Your task to perform on an android device: Open settings on Google Maps Image 0: 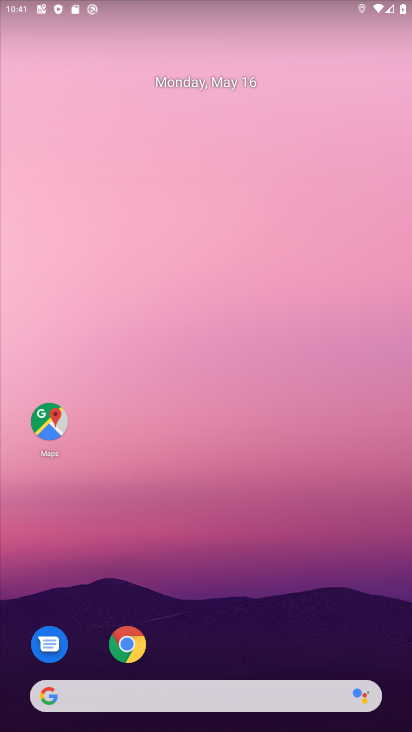
Step 0: drag from (202, 727) to (226, 129)
Your task to perform on an android device: Open settings on Google Maps Image 1: 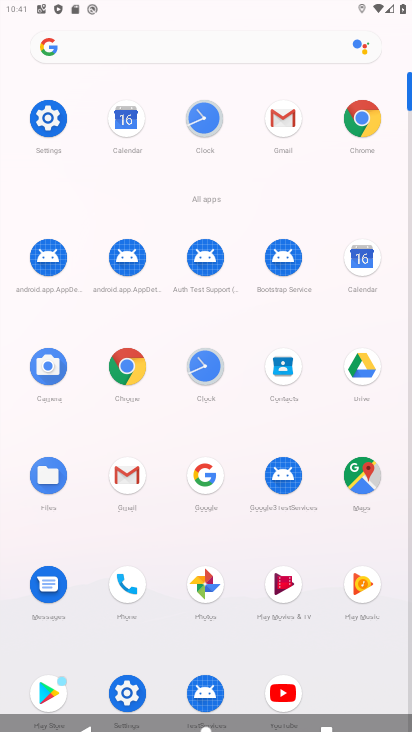
Step 1: click (365, 468)
Your task to perform on an android device: Open settings on Google Maps Image 2: 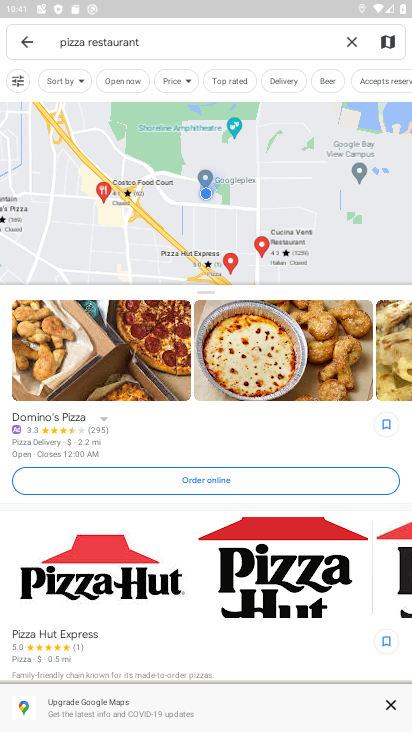
Step 2: click (25, 38)
Your task to perform on an android device: Open settings on Google Maps Image 3: 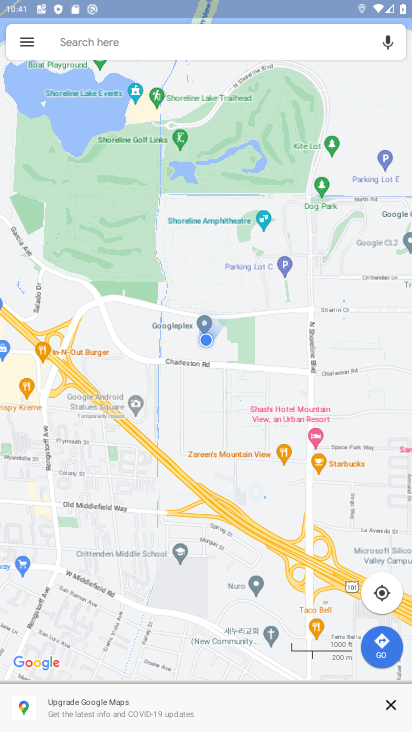
Step 3: click (25, 38)
Your task to perform on an android device: Open settings on Google Maps Image 4: 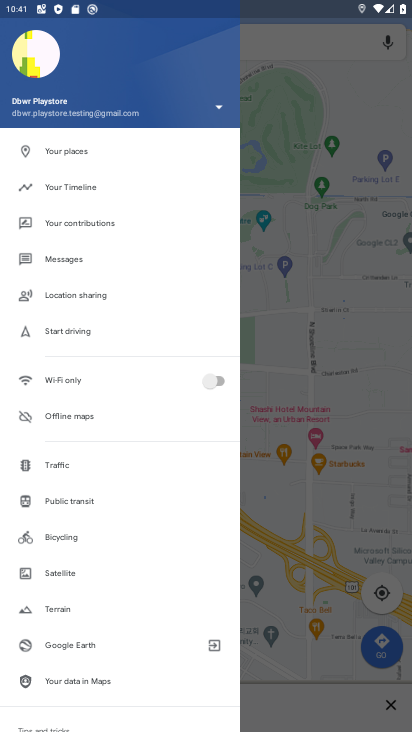
Step 4: drag from (59, 671) to (74, 335)
Your task to perform on an android device: Open settings on Google Maps Image 5: 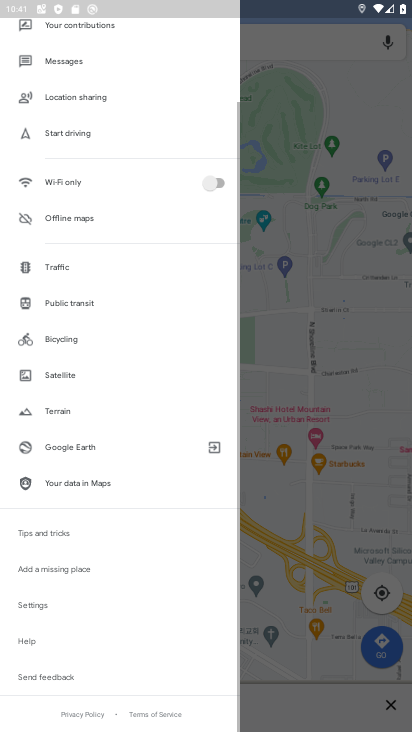
Step 5: click (33, 604)
Your task to perform on an android device: Open settings on Google Maps Image 6: 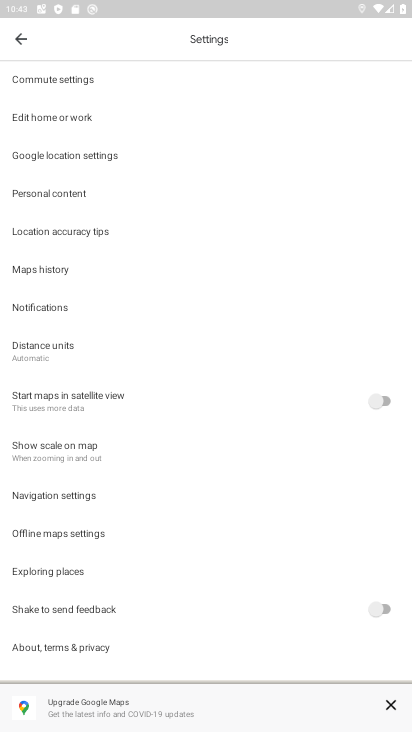
Step 6: task complete